Your task to perform on an android device: star an email in the gmail app Image 0: 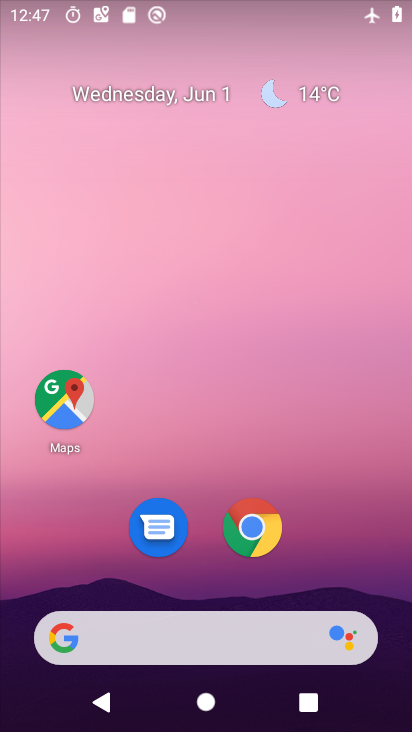
Step 0: drag from (303, 578) to (328, 4)
Your task to perform on an android device: star an email in the gmail app Image 1: 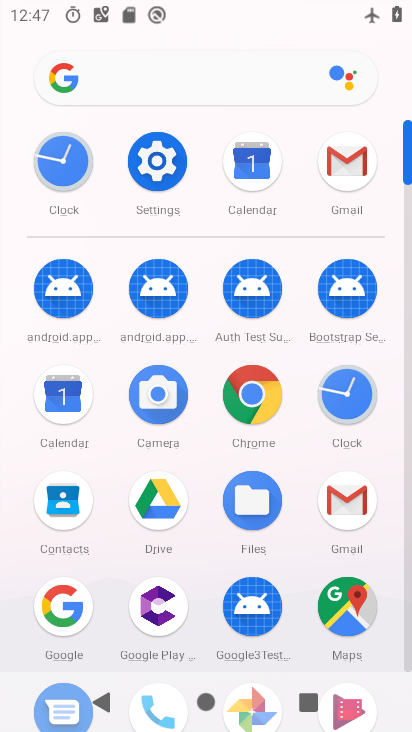
Step 1: click (330, 171)
Your task to perform on an android device: star an email in the gmail app Image 2: 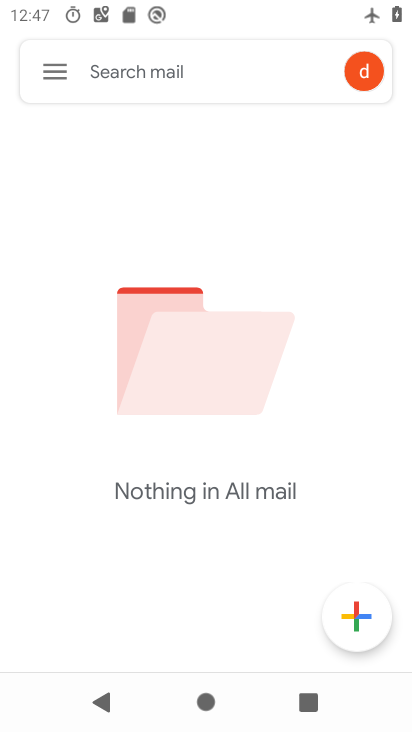
Step 2: task complete